Your task to perform on an android device: turn on showing notifications on the lock screen Image 0: 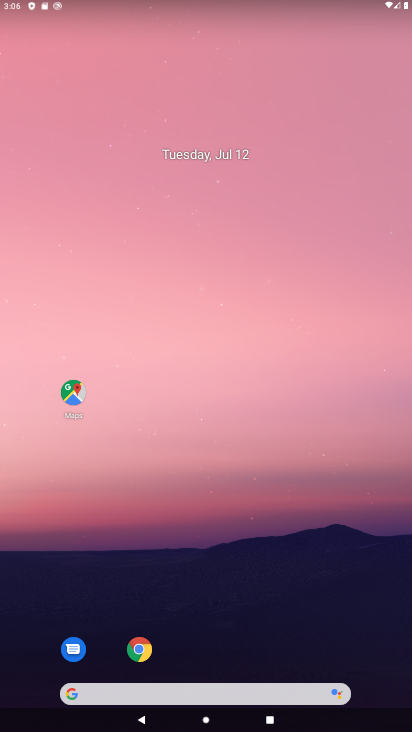
Step 0: drag from (221, 673) to (241, 29)
Your task to perform on an android device: turn on showing notifications on the lock screen Image 1: 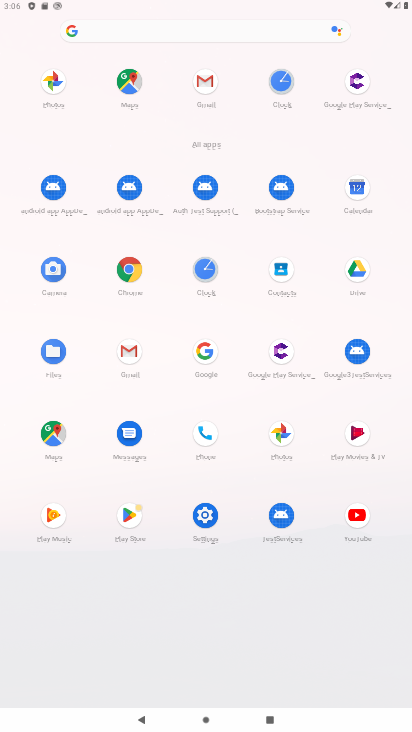
Step 1: click (203, 508)
Your task to perform on an android device: turn on showing notifications on the lock screen Image 2: 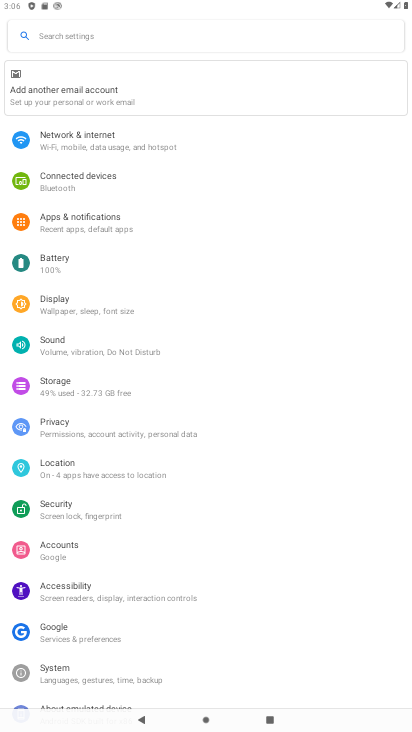
Step 2: click (104, 220)
Your task to perform on an android device: turn on showing notifications on the lock screen Image 3: 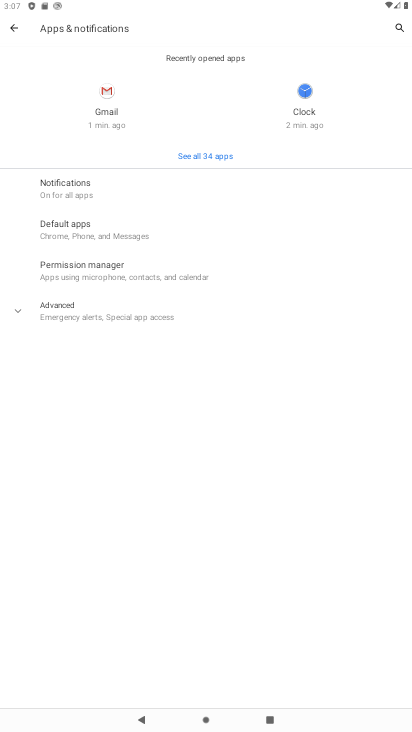
Step 3: click (101, 183)
Your task to perform on an android device: turn on showing notifications on the lock screen Image 4: 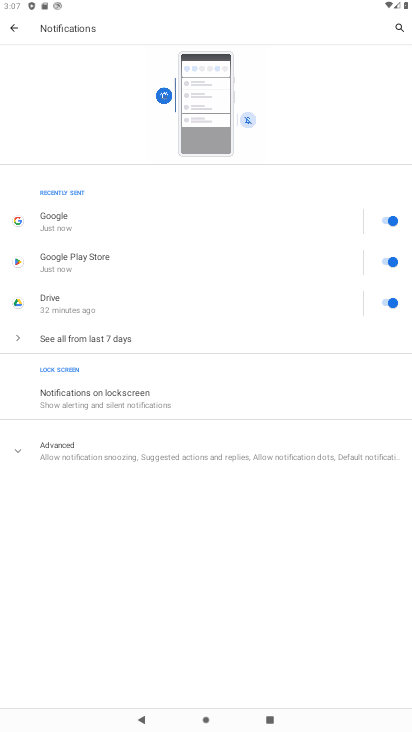
Step 4: click (171, 398)
Your task to perform on an android device: turn on showing notifications on the lock screen Image 5: 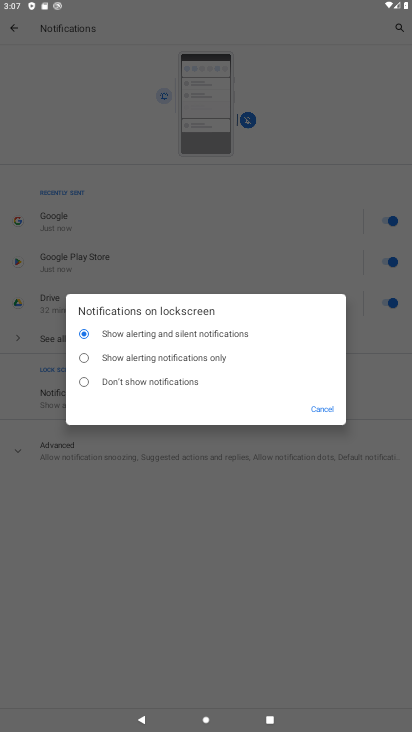
Step 5: click (84, 353)
Your task to perform on an android device: turn on showing notifications on the lock screen Image 6: 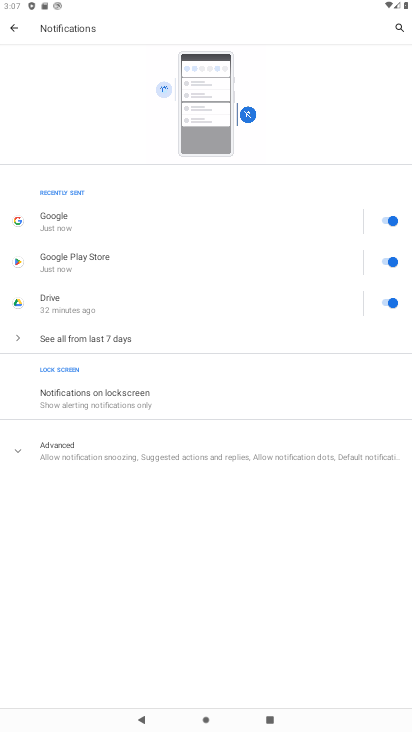
Step 6: task complete